Your task to perform on an android device: Add "logitech g910" to the cart on amazon.com Image 0: 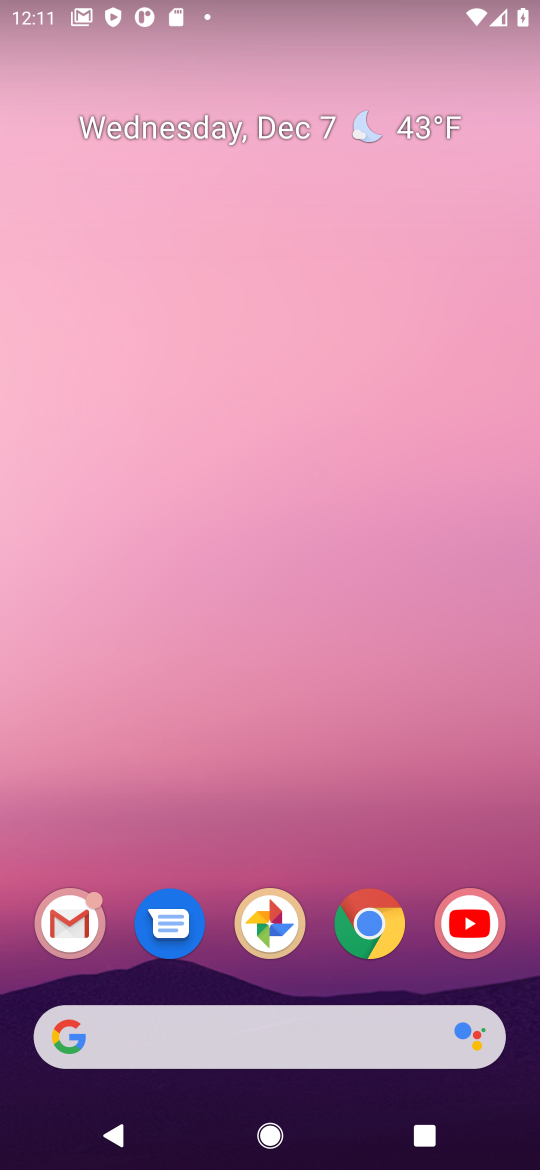
Step 0: press home button
Your task to perform on an android device: Add "logitech g910" to the cart on amazon.com Image 1: 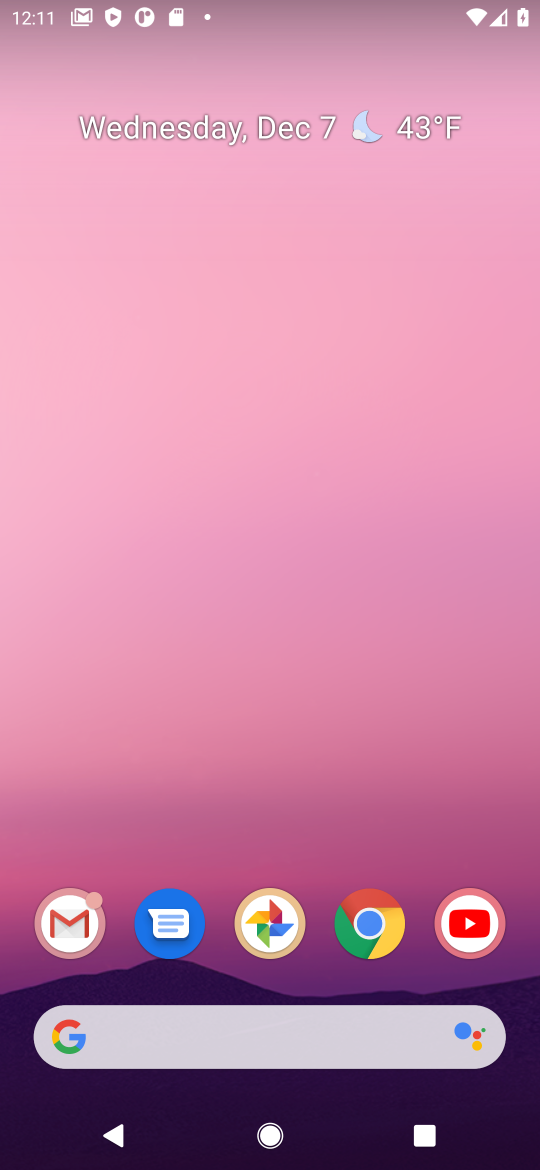
Step 1: click (366, 922)
Your task to perform on an android device: Add "logitech g910" to the cart on amazon.com Image 2: 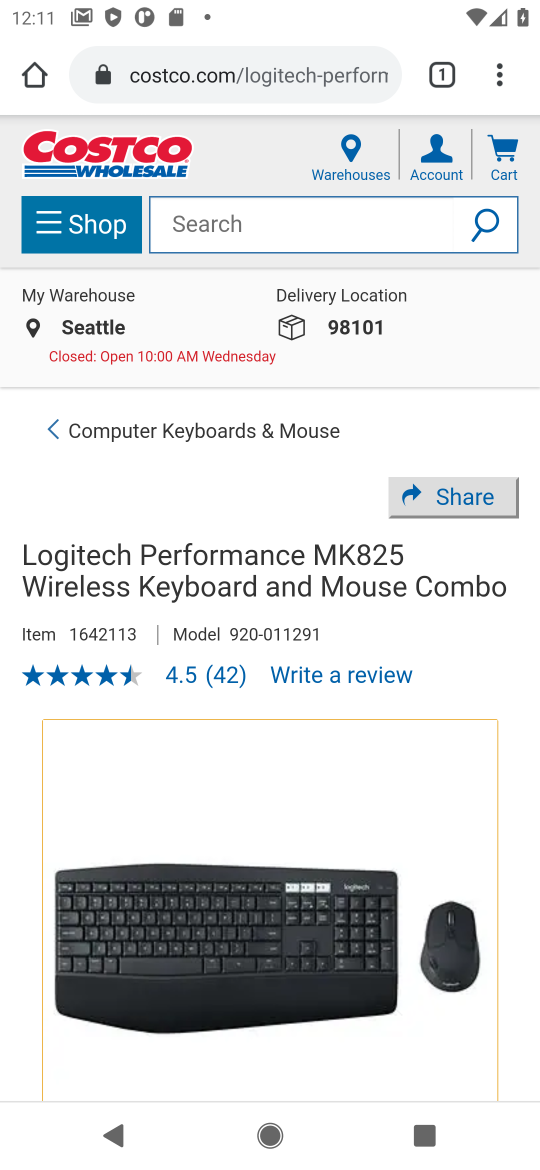
Step 2: click (287, 72)
Your task to perform on an android device: Add "logitech g910" to the cart on amazon.com Image 3: 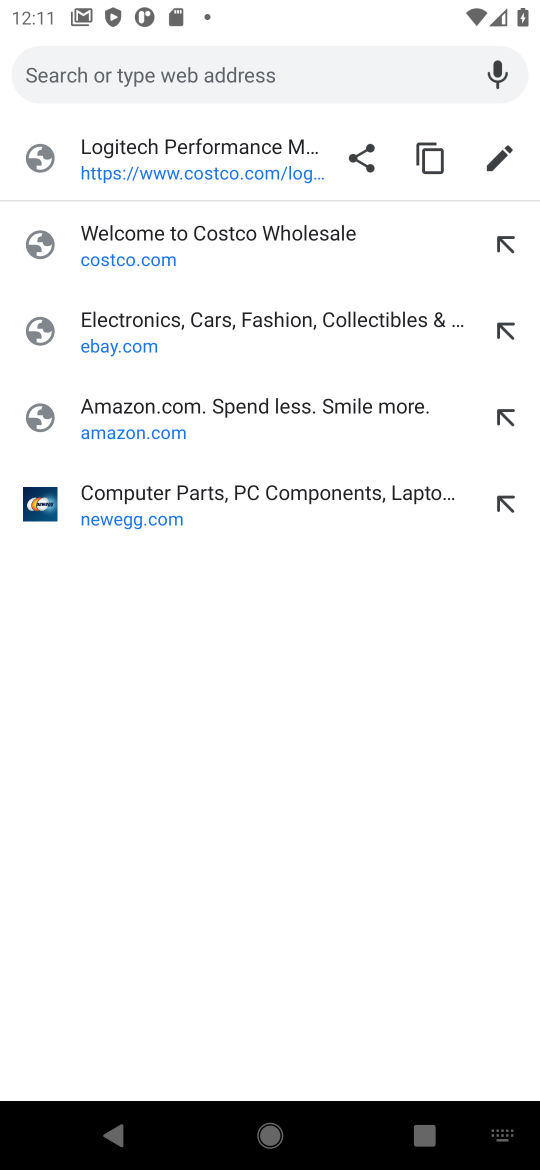
Step 3: click (169, 427)
Your task to perform on an android device: Add "logitech g910" to the cart on amazon.com Image 4: 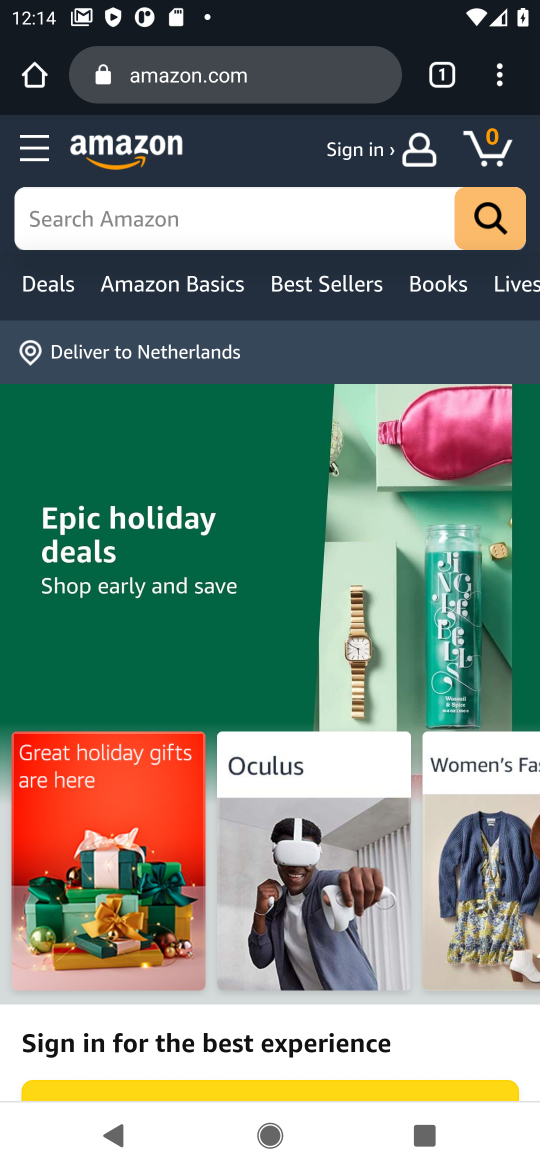
Step 4: click (129, 223)
Your task to perform on an android device: Add "logitech g910" to the cart on amazon.com Image 5: 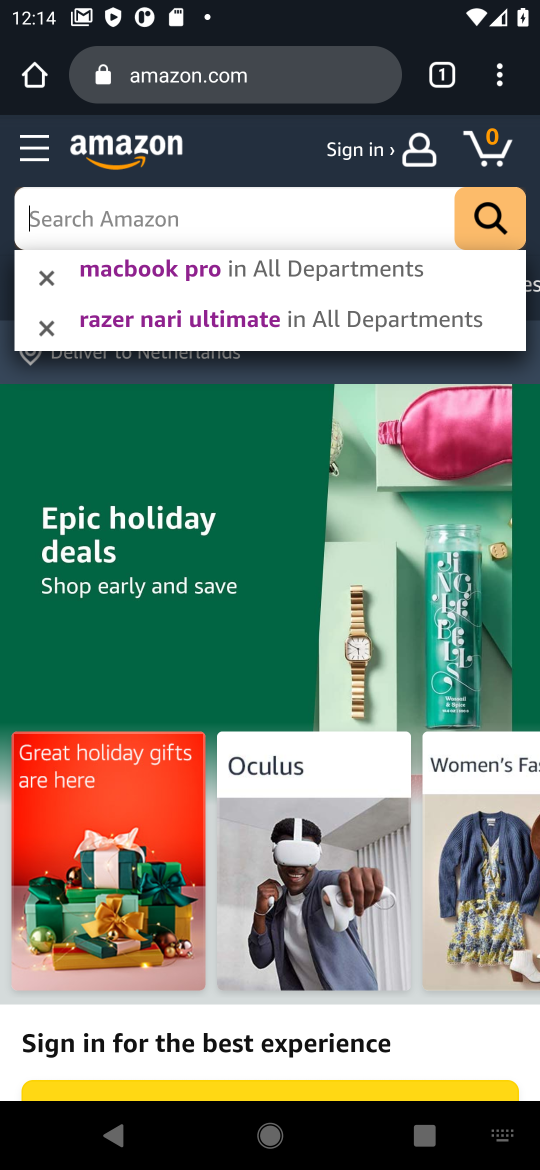
Step 5: type "logitech g910"
Your task to perform on an android device: Add "logitech g910" to the cart on amazon.com Image 6: 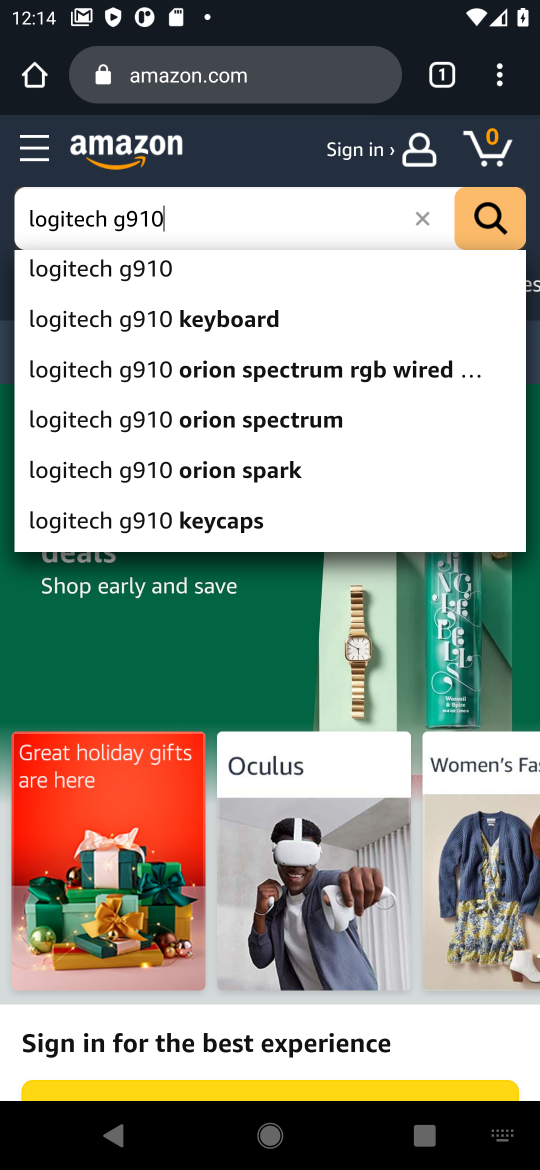
Step 6: click (174, 274)
Your task to perform on an android device: Add "logitech g910" to the cart on amazon.com Image 7: 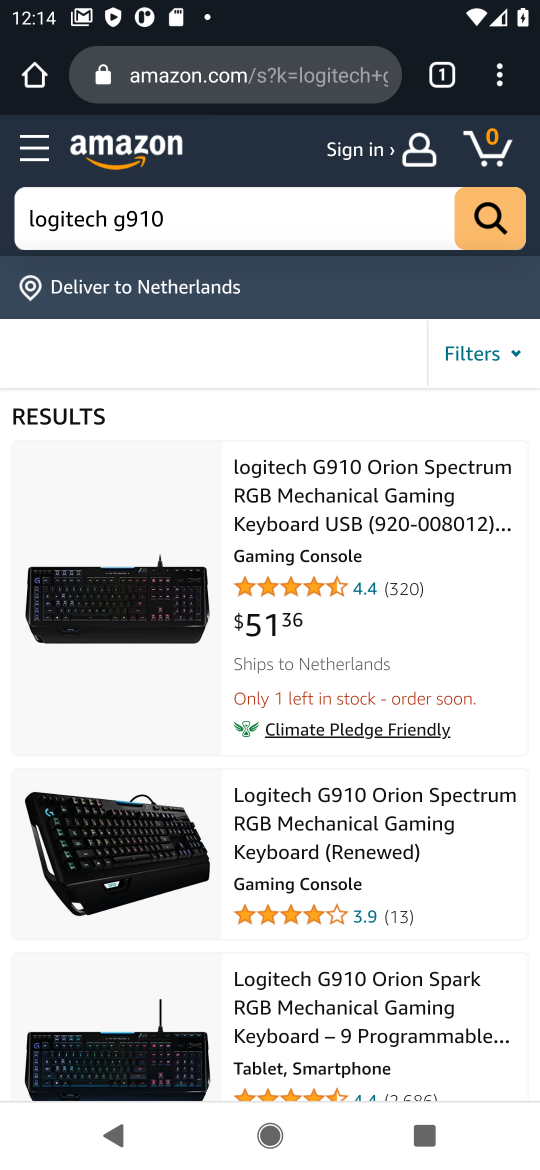
Step 7: click (108, 536)
Your task to perform on an android device: Add "logitech g910" to the cart on amazon.com Image 8: 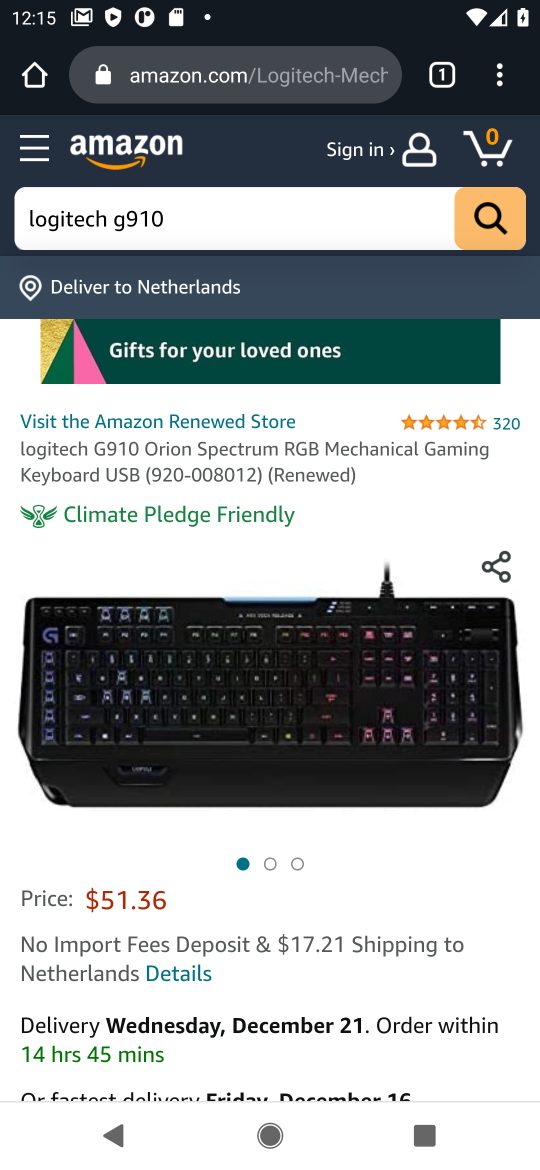
Step 8: drag from (331, 1028) to (319, 121)
Your task to perform on an android device: Add "logitech g910" to the cart on amazon.com Image 9: 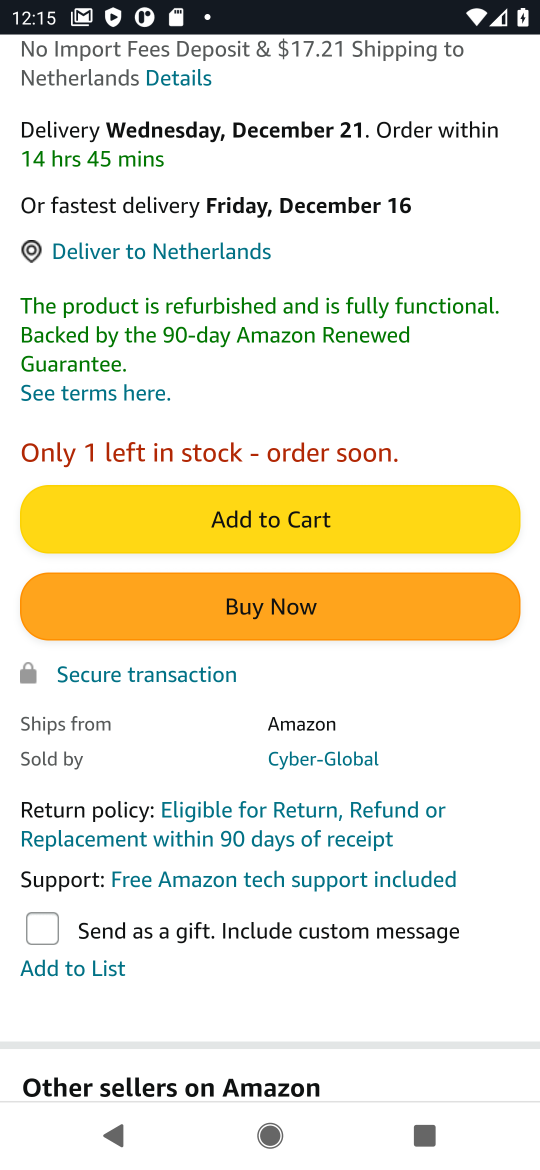
Step 9: click (272, 526)
Your task to perform on an android device: Add "logitech g910" to the cart on amazon.com Image 10: 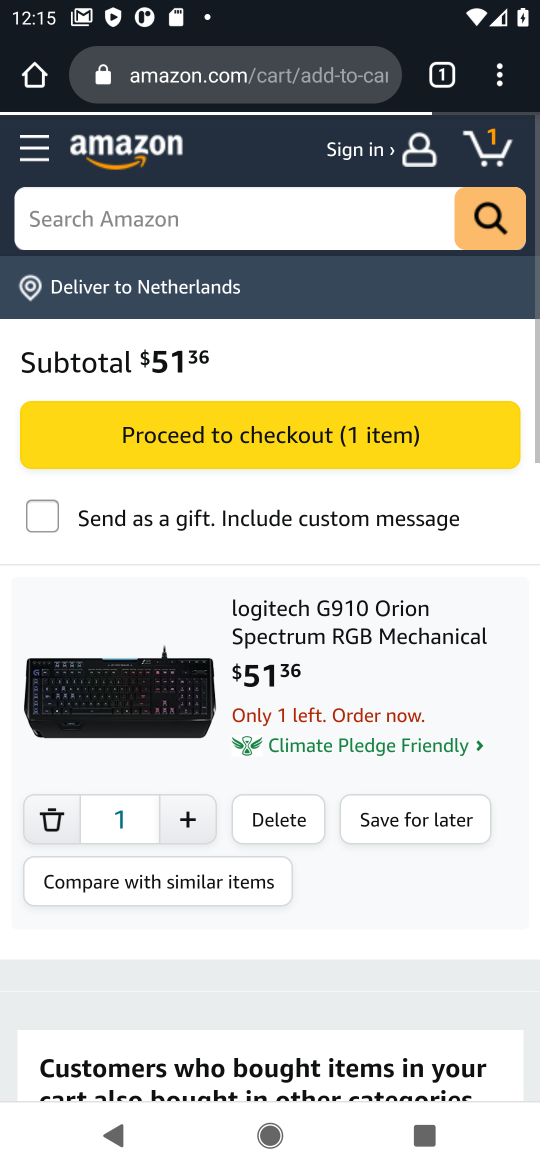
Step 10: task complete